Your task to perform on an android device: change keyboard looks Image 0: 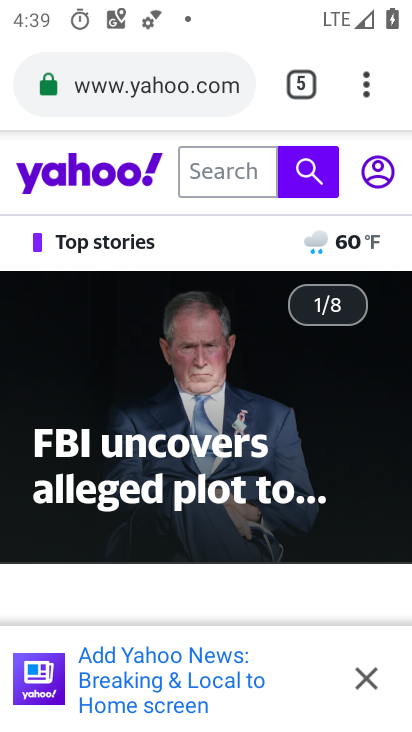
Step 0: press home button
Your task to perform on an android device: change keyboard looks Image 1: 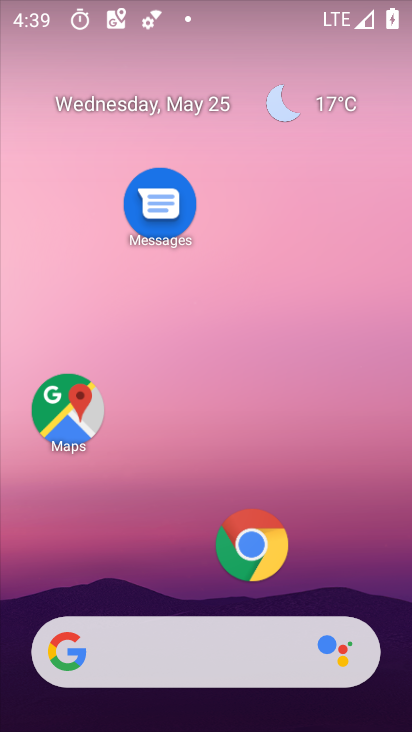
Step 1: drag from (310, 528) to (276, 356)
Your task to perform on an android device: change keyboard looks Image 2: 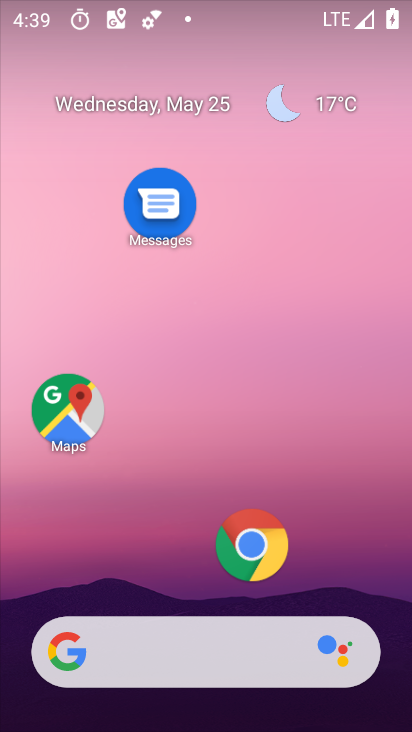
Step 2: drag from (193, 535) to (226, 336)
Your task to perform on an android device: change keyboard looks Image 3: 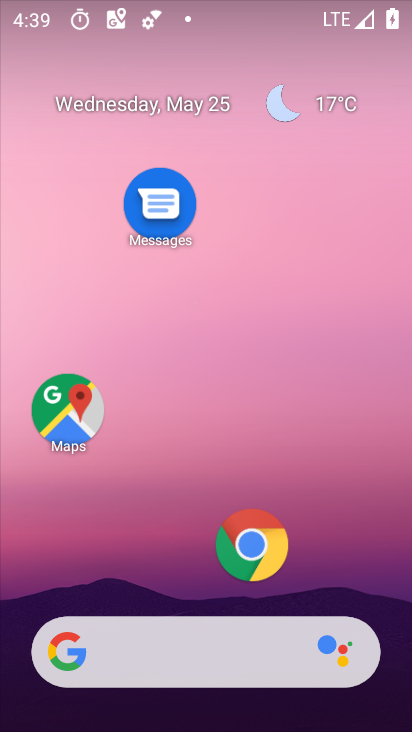
Step 3: drag from (210, 432) to (185, 90)
Your task to perform on an android device: change keyboard looks Image 4: 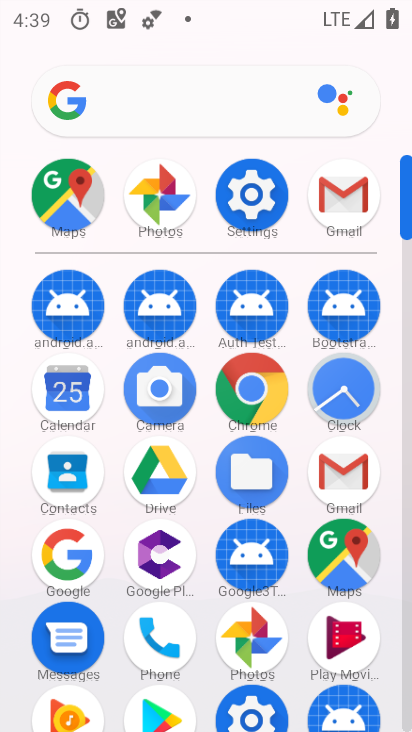
Step 4: click (249, 205)
Your task to perform on an android device: change keyboard looks Image 5: 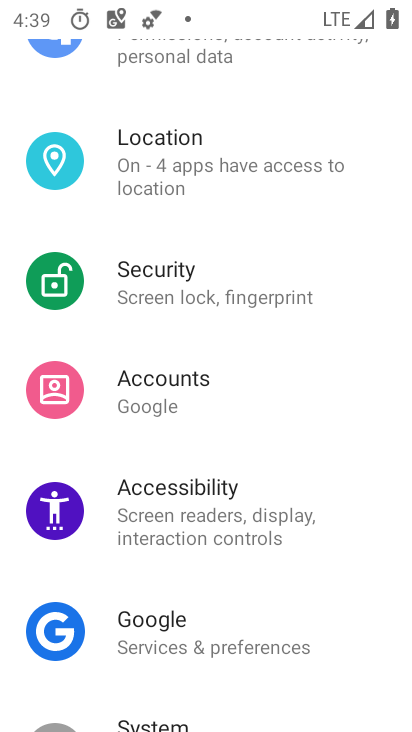
Step 5: drag from (264, 553) to (272, 379)
Your task to perform on an android device: change keyboard looks Image 6: 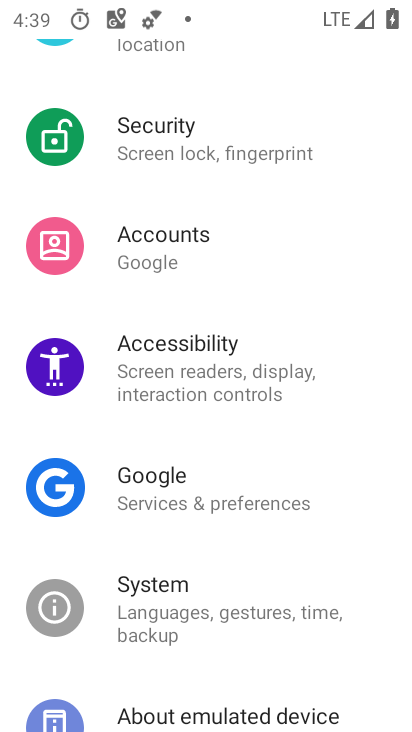
Step 6: click (210, 625)
Your task to perform on an android device: change keyboard looks Image 7: 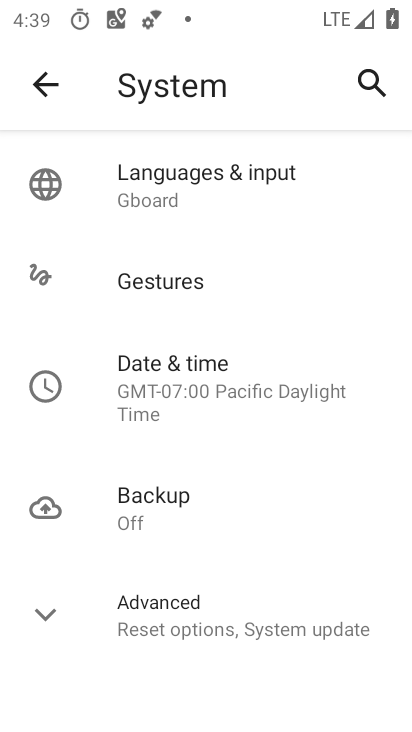
Step 7: click (211, 177)
Your task to perform on an android device: change keyboard looks Image 8: 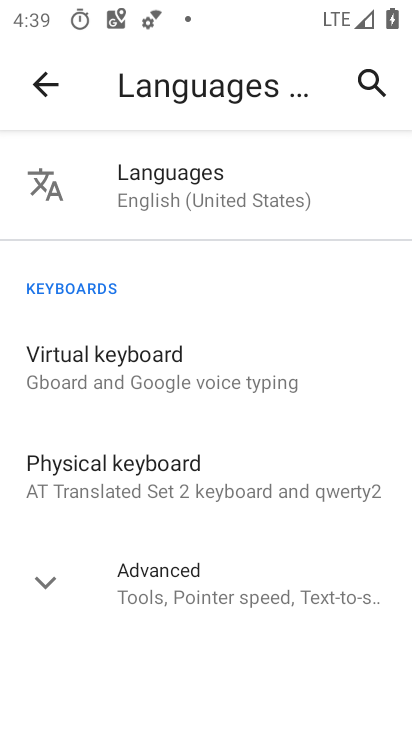
Step 8: click (170, 364)
Your task to perform on an android device: change keyboard looks Image 9: 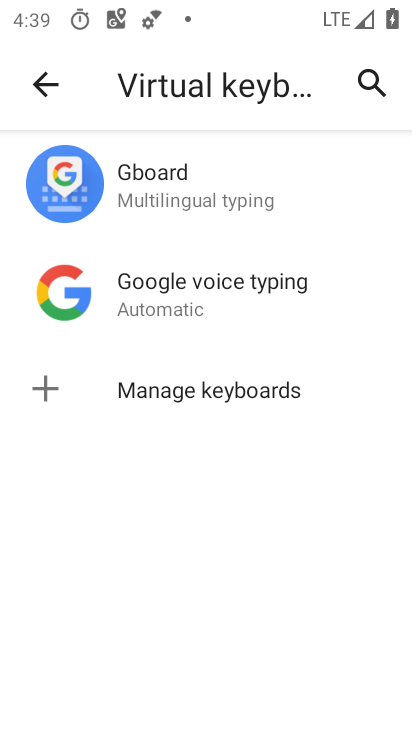
Step 9: click (183, 171)
Your task to perform on an android device: change keyboard looks Image 10: 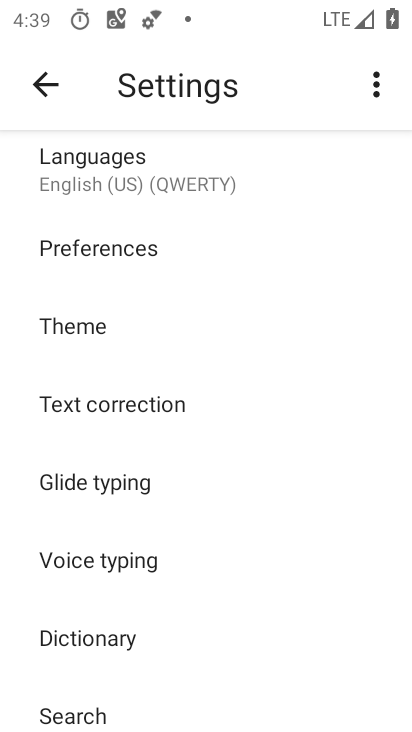
Step 10: click (95, 324)
Your task to perform on an android device: change keyboard looks Image 11: 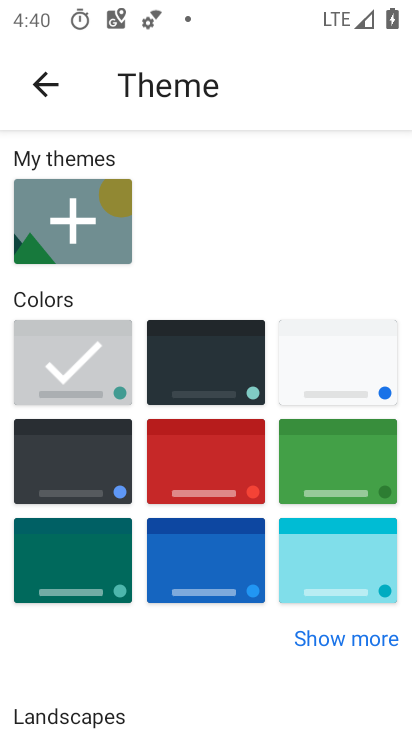
Step 11: click (181, 455)
Your task to perform on an android device: change keyboard looks Image 12: 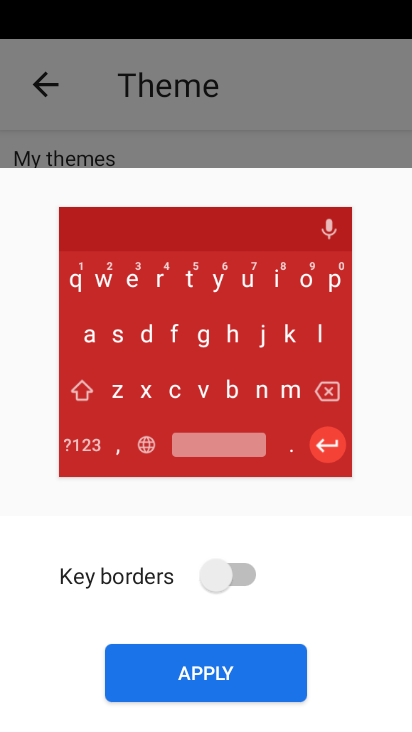
Step 12: click (250, 573)
Your task to perform on an android device: change keyboard looks Image 13: 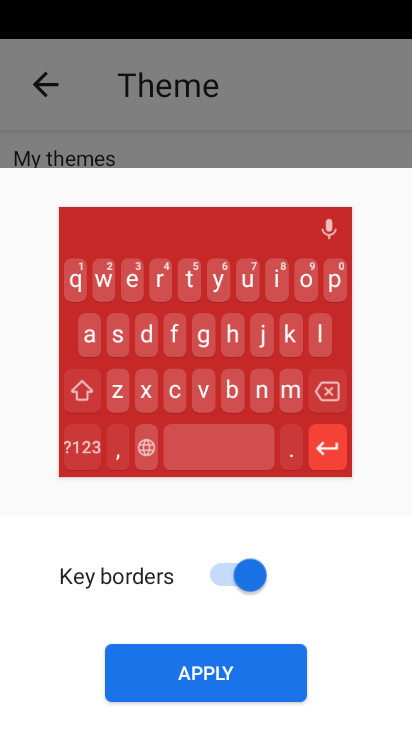
Step 13: click (225, 664)
Your task to perform on an android device: change keyboard looks Image 14: 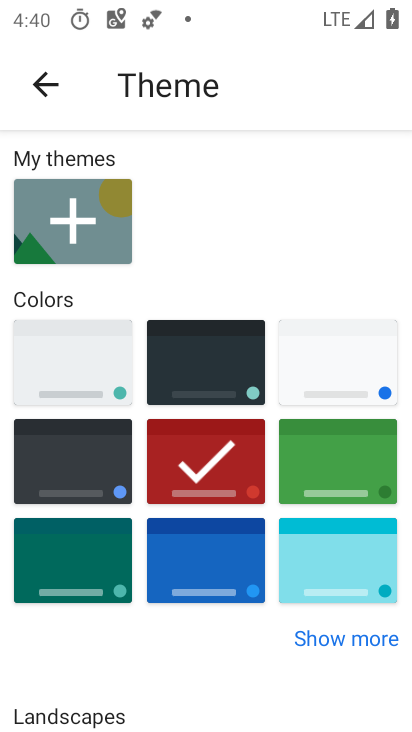
Step 14: task complete